Your task to perform on an android device: Search for pizza restaurants on Maps Image 0: 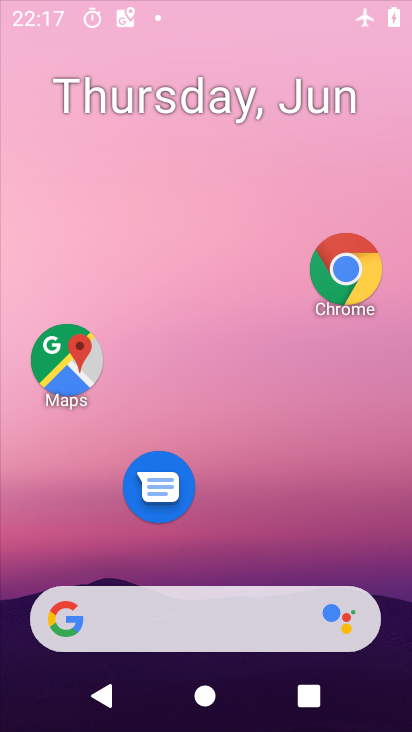
Step 0: click (247, 54)
Your task to perform on an android device: Search for pizza restaurants on Maps Image 1: 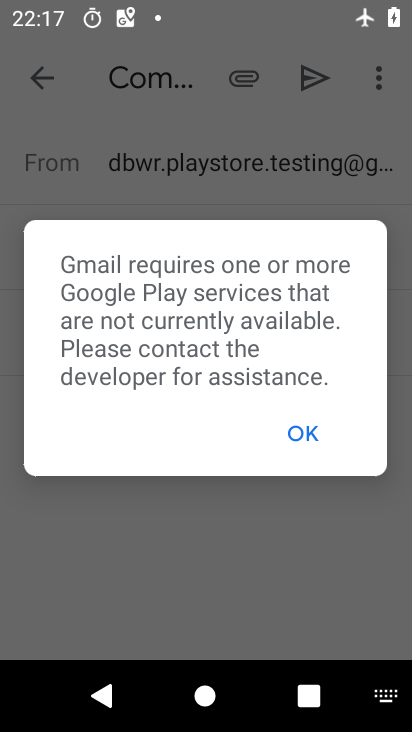
Step 1: press home button
Your task to perform on an android device: Search for pizza restaurants on Maps Image 2: 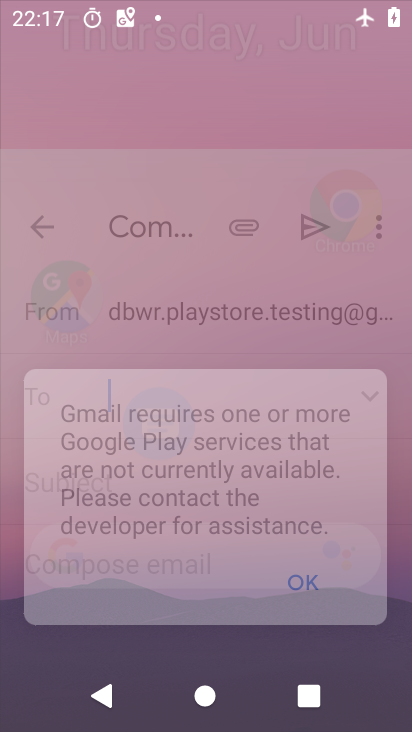
Step 2: drag from (240, 503) to (327, 28)
Your task to perform on an android device: Search for pizza restaurants on Maps Image 3: 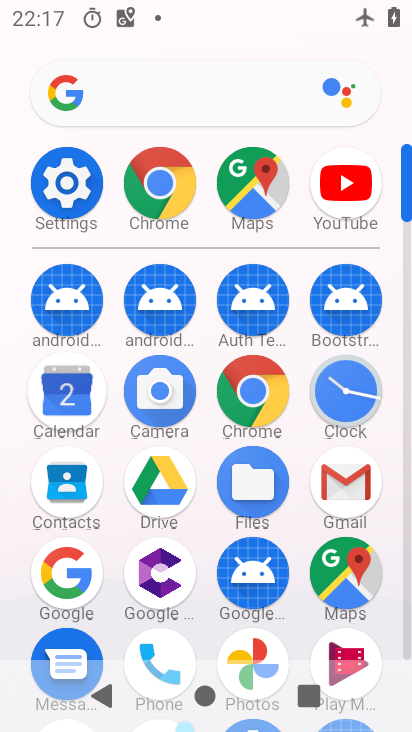
Step 3: click (348, 569)
Your task to perform on an android device: Search for pizza restaurants on Maps Image 4: 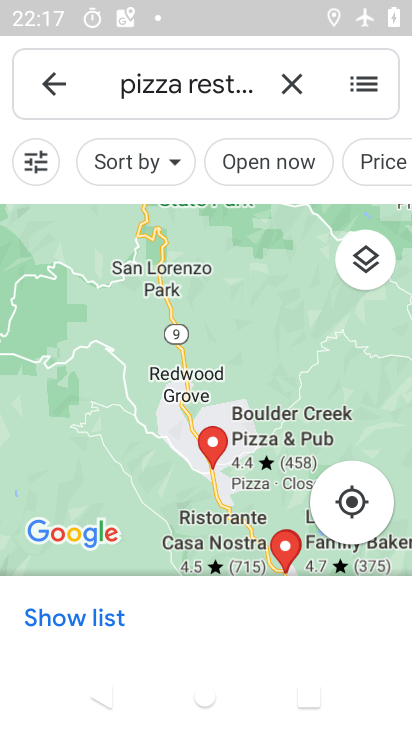
Step 4: task complete